Your task to perform on an android device: all mails in gmail Image 0: 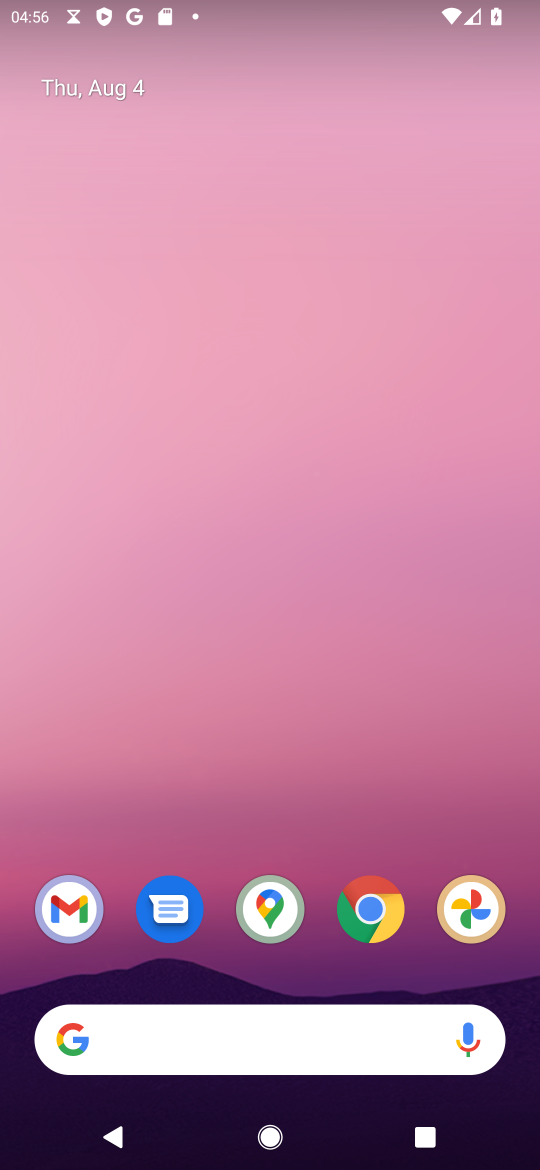
Step 0: drag from (239, 1055) to (386, 427)
Your task to perform on an android device: all mails in gmail Image 1: 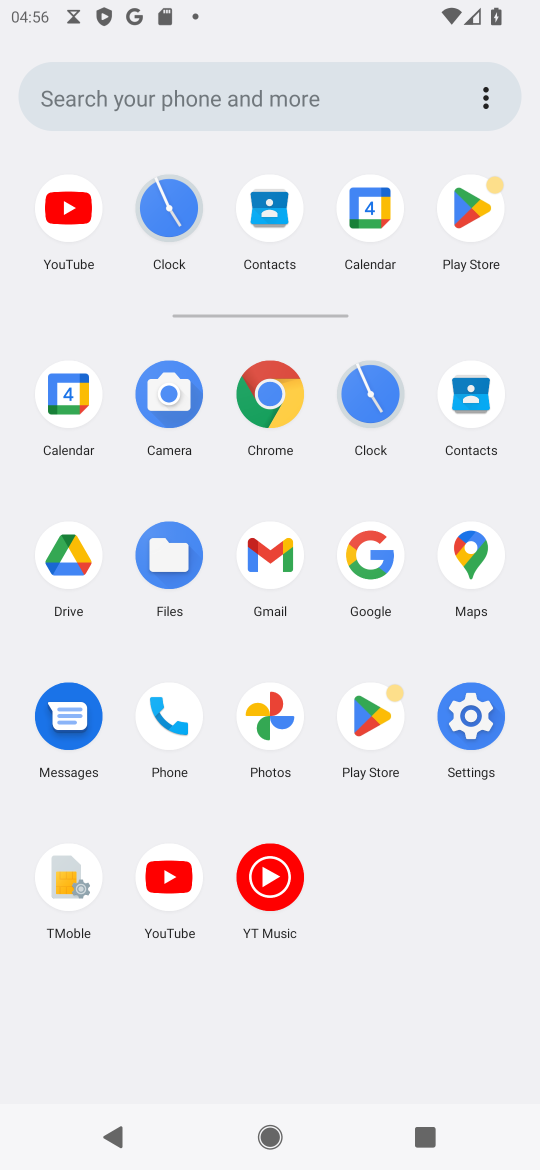
Step 1: click (271, 545)
Your task to perform on an android device: all mails in gmail Image 2: 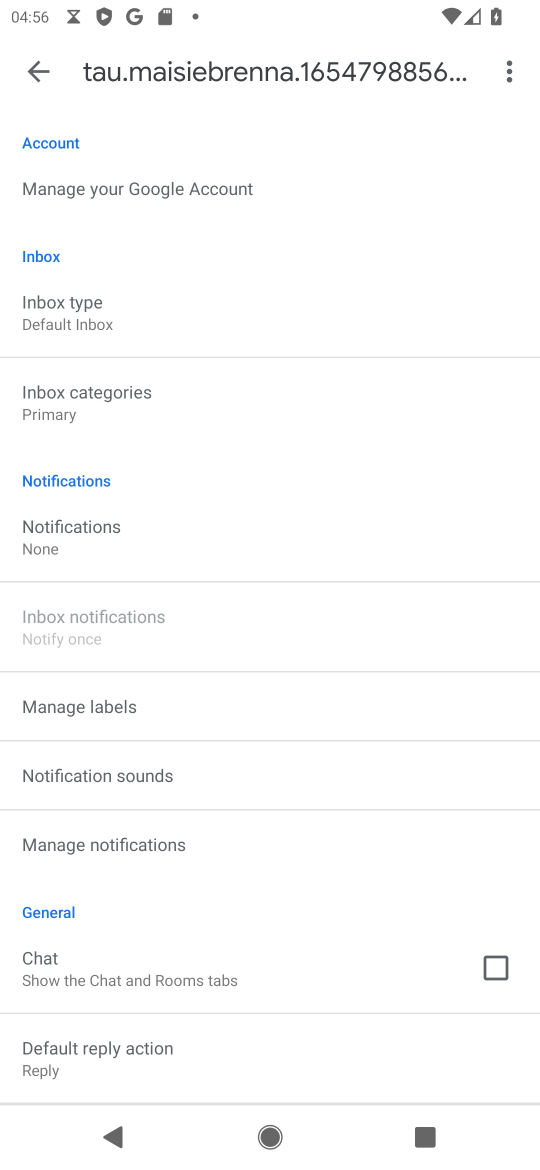
Step 2: click (38, 72)
Your task to perform on an android device: all mails in gmail Image 3: 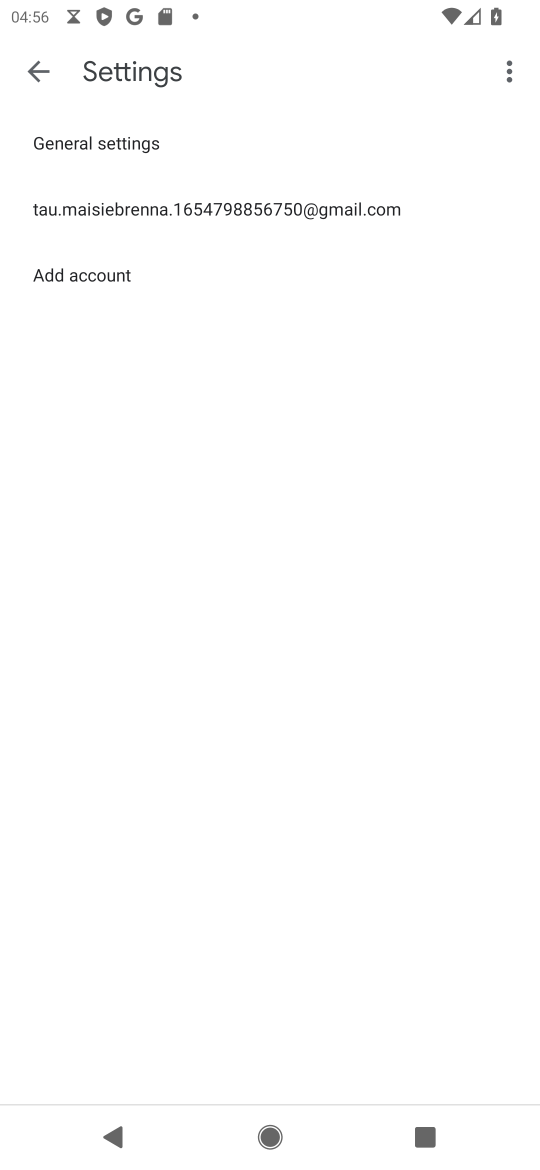
Step 3: click (32, 78)
Your task to perform on an android device: all mails in gmail Image 4: 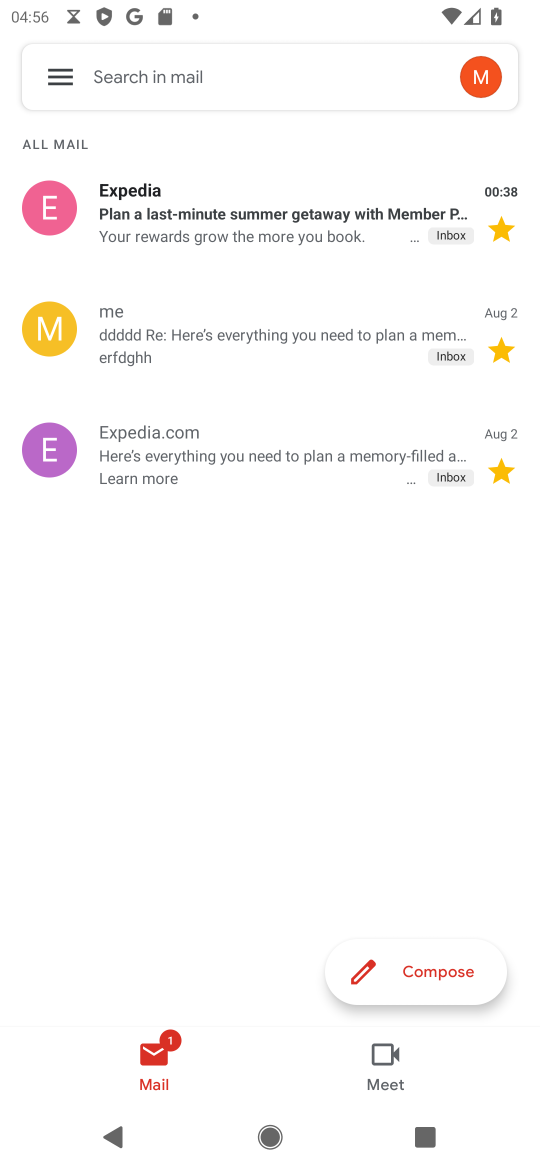
Step 4: click (58, 74)
Your task to perform on an android device: all mails in gmail Image 5: 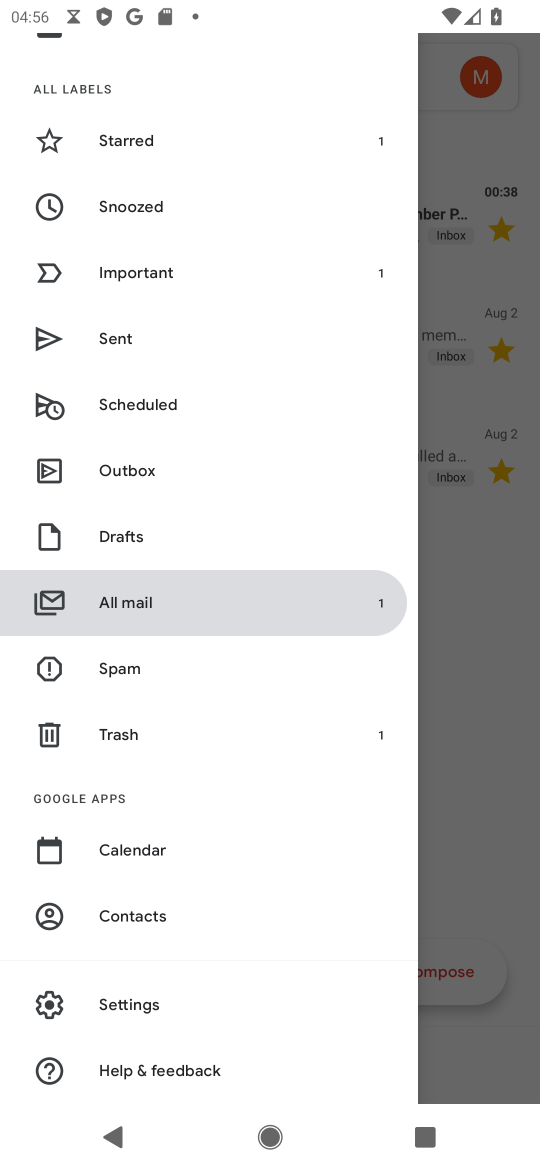
Step 5: click (152, 610)
Your task to perform on an android device: all mails in gmail Image 6: 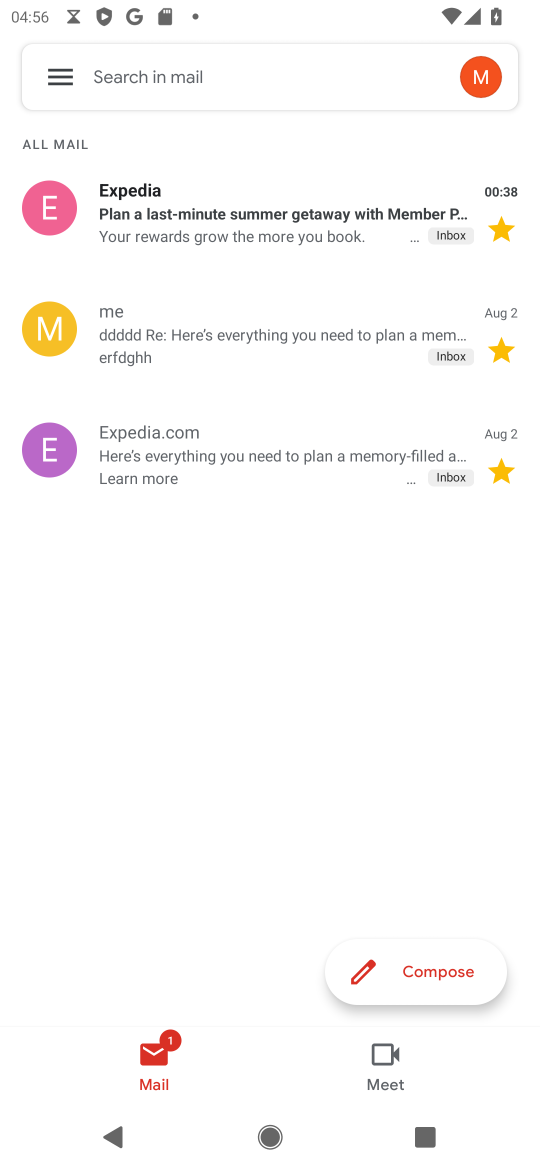
Step 6: task complete